Your task to perform on an android device: What is the news today? Image 0: 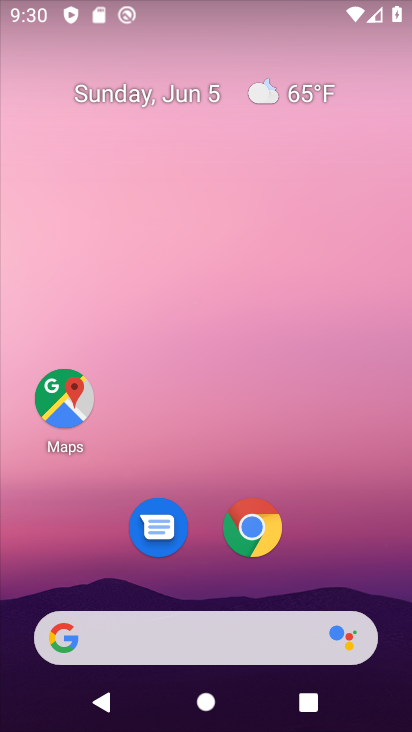
Step 0: click (187, 645)
Your task to perform on an android device: What is the news today? Image 1: 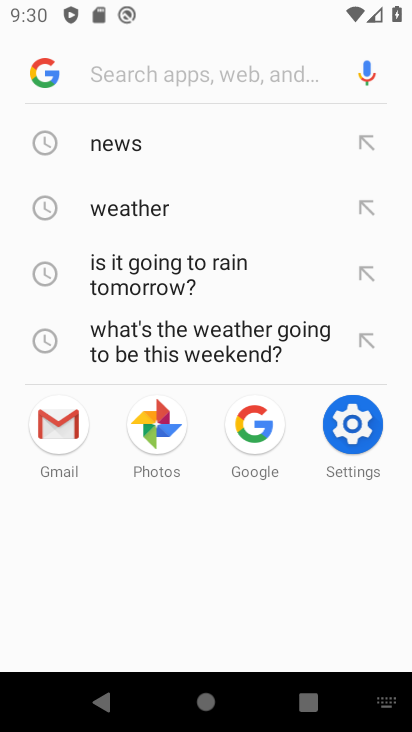
Step 1: type "news today"
Your task to perform on an android device: What is the news today? Image 2: 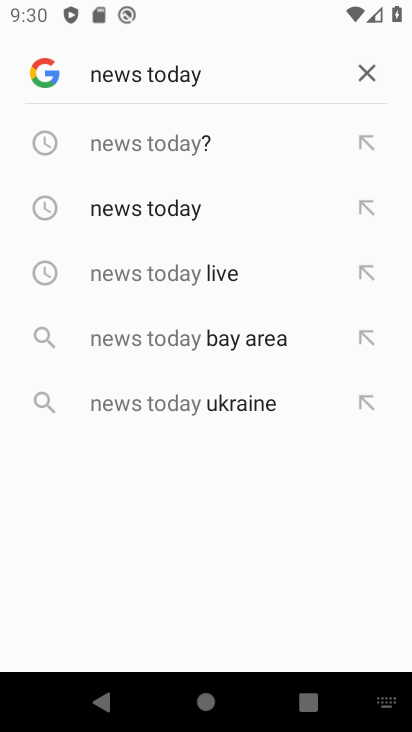
Step 2: click (179, 149)
Your task to perform on an android device: What is the news today? Image 3: 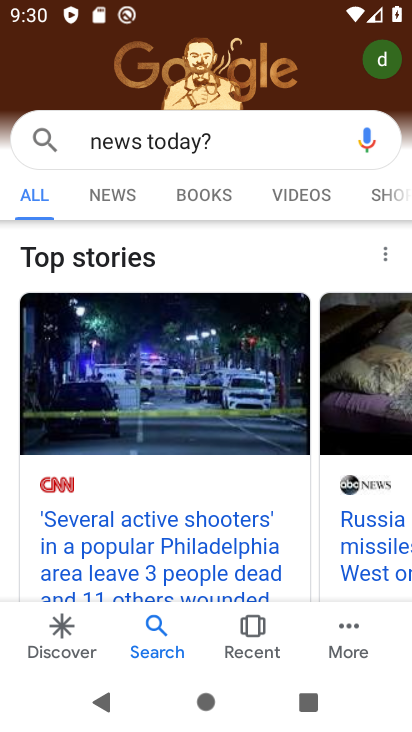
Step 3: task complete